Your task to perform on an android device: change timer sound Image 0: 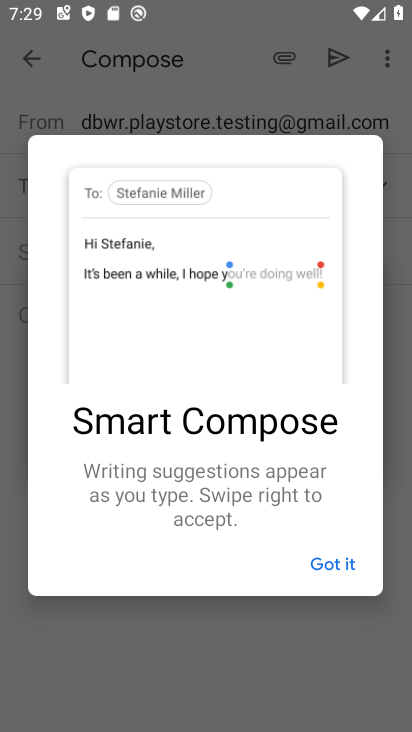
Step 0: press home button
Your task to perform on an android device: change timer sound Image 1: 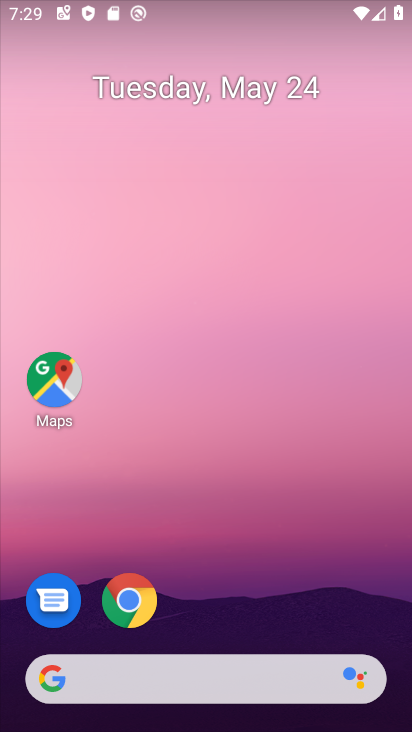
Step 1: drag from (245, 608) to (297, 84)
Your task to perform on an android device: change timer sound Image 2: 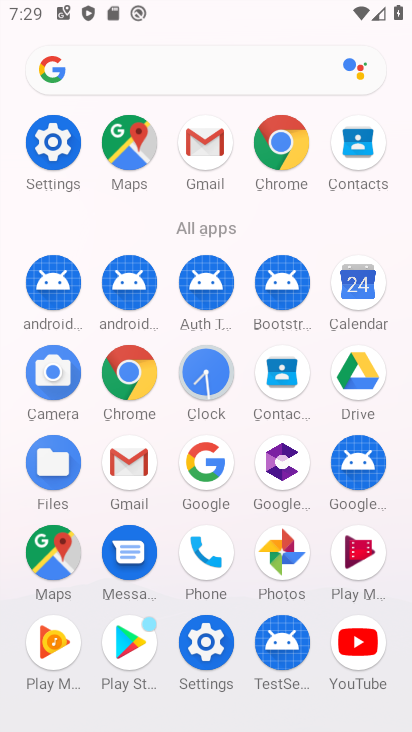
Step 2: click (206, 376)
Your task to perform on an android device: change timer sound Image 3: 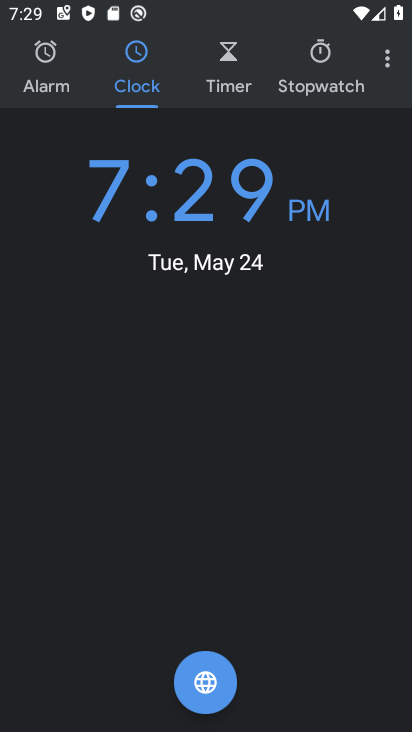
Step 3: click (388, 55)
Your task to perform on an android device: change timer sound Image 4: 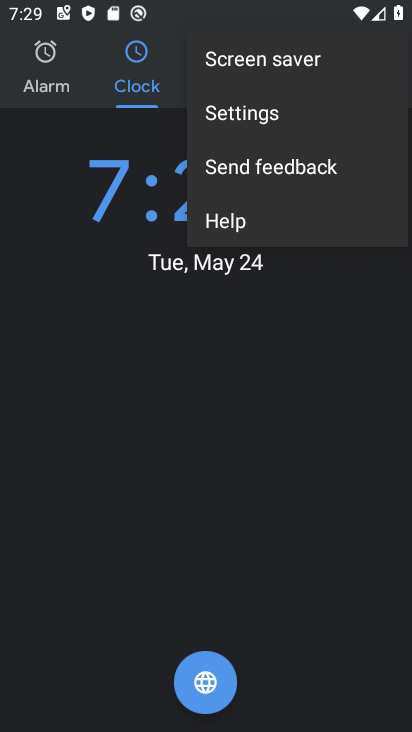
Step 4: click (262, 110)
Your task to perform on an android device: change timer sound Image 5: 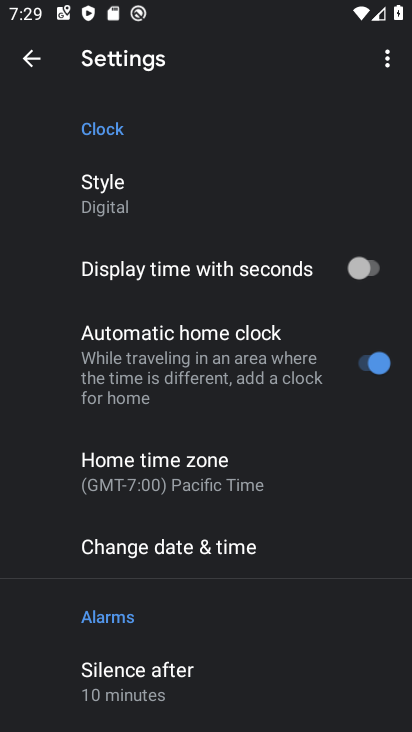
Step 5: drag from (208, 642) to (321, 8)
Your task to perform on an android device: change timer sound Image 6: 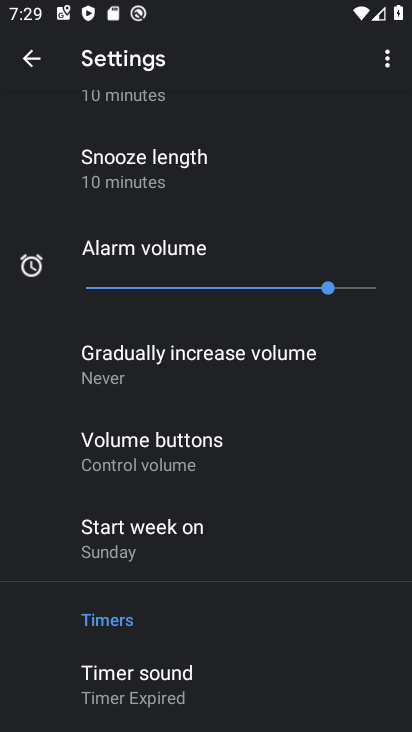
Step 6: click (122, 676)
Your task to perform on an android device: change timer sound Image 7: 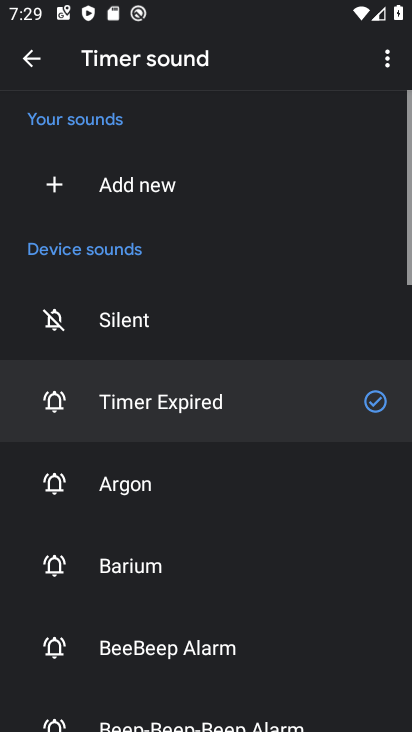
Step 7: click (109, 488)
Your task to perform on an android device: change timer sound Image 8: 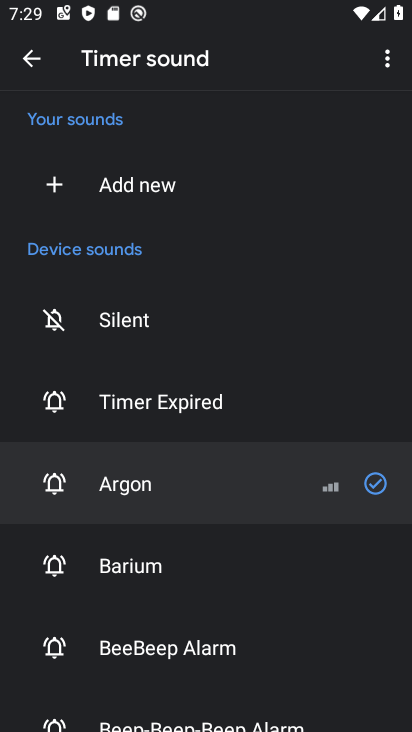
Step 8: task complete